Your task to perform on an android device: Show me productivity apps on the Play Store Image 0: 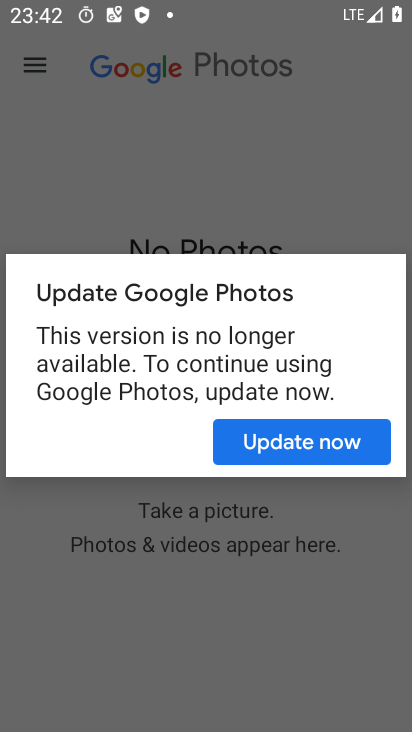
Step 0: press home button
Your task to perform on an android device: Show me productivity apps on the Play Store Image 1: 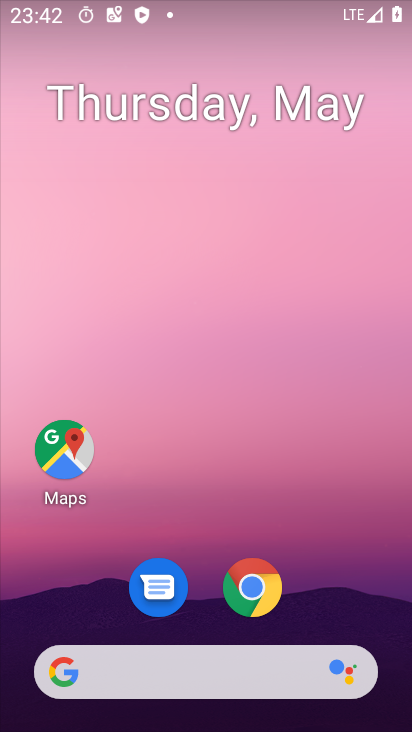
Step 1: drag from (369, 634) to (299, 7)
Your task to perform on an android device: Show me productivity apps on the Play Store Image 2: 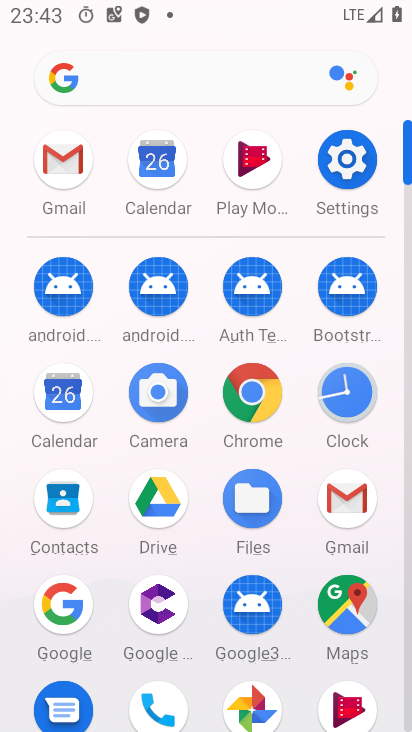
Step 2: click (403, 565)
Your task to perform on an android device: Show me productivity apps on the Play Store Image 3: 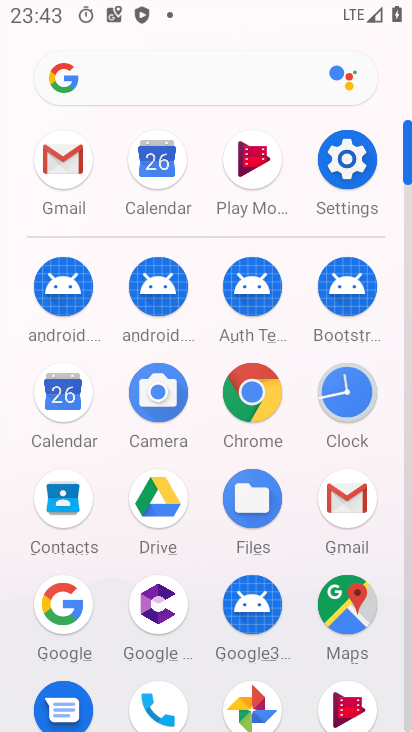
Step 3: click (408, 551)
Your task to perform on an android device: Show me productivity apps on the Play Store Image 4: 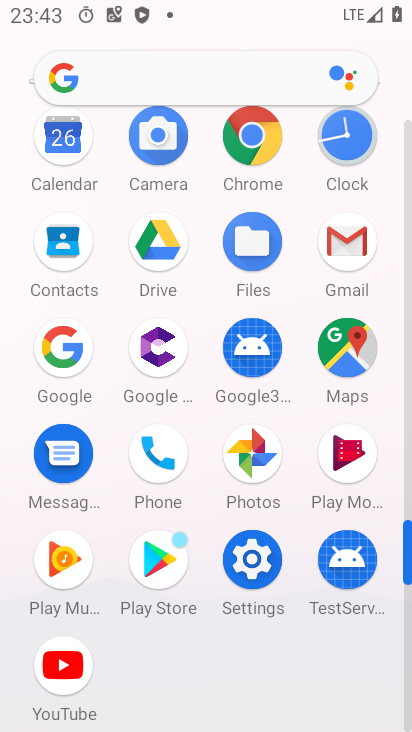
Step 4: click (159, 560)
Your task to perform on an android device: Show me productivity apps on the Play Store Image 5: 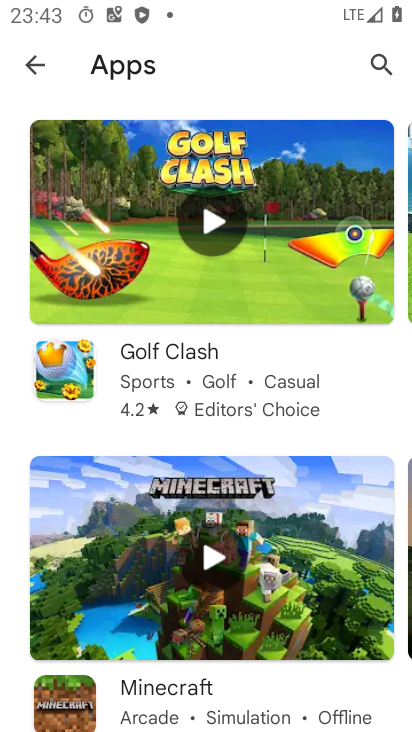
Step 5: click (32, 74)
Your task to perform on an android device: Show me productivity apps on the Play Store Image 6: 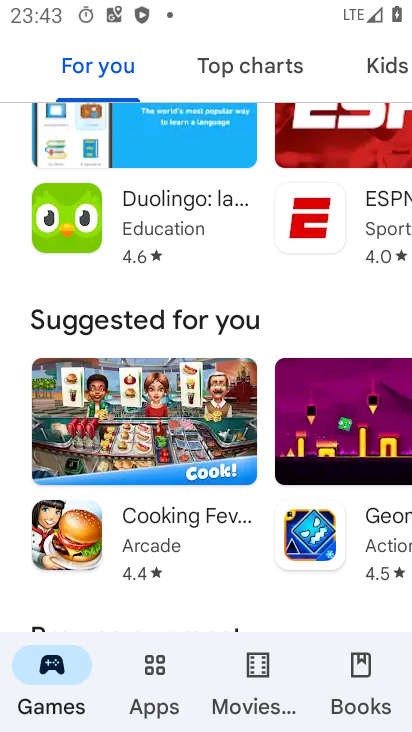
Step 6: click (155, 693)
Your task to perform on an android device: Show me productivity apps on the Play Store Image 7: 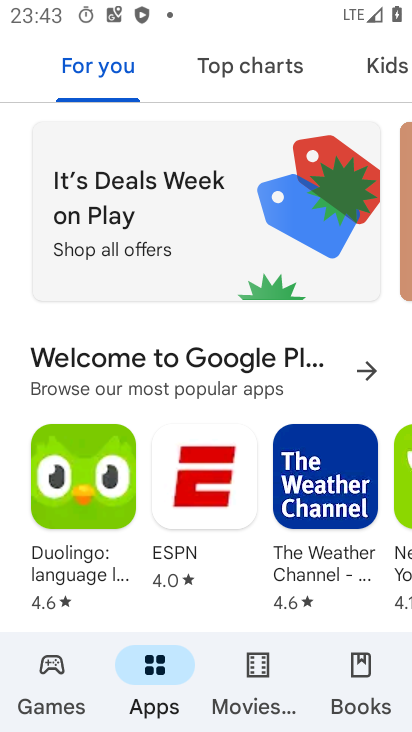
Step 7: drag from (325, 63) to (0, 109)
Your task to perform on an android device: Show me productivity apps on the Play Store Image 8: 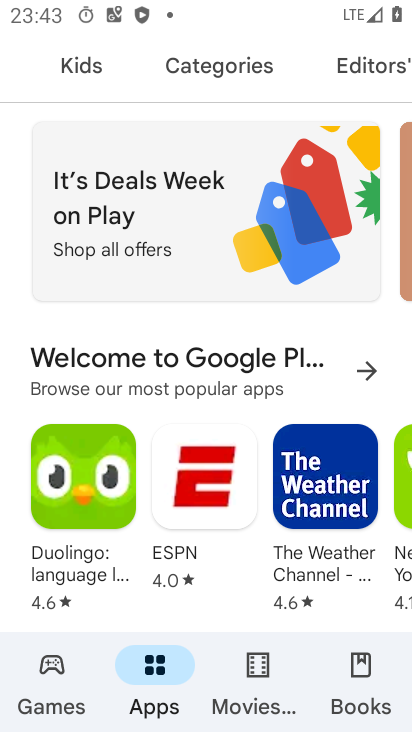
Step 8: click (183, 68)
Your task to perform on an android device: Show me productivity apps on the Play Store Image 9: 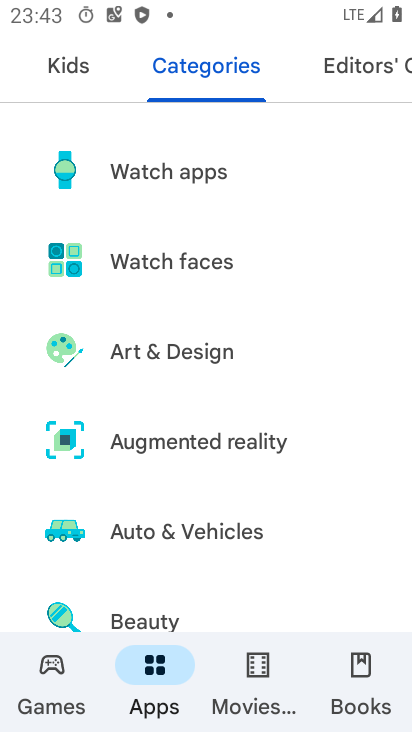
Step 9: drag from (326, 537) to (251, 225)
Your task to perform on an android device: Show me productivity apps on the Play Store Image 10: 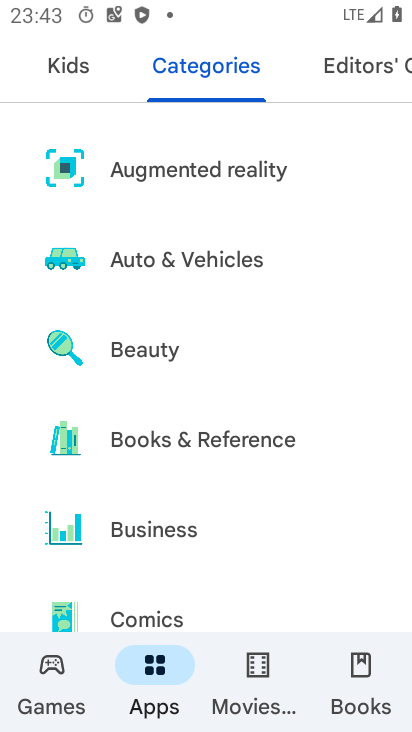
Step 10: drag from (206, 546) to (188, 40)
Your task to perform on an android device: Show me productivity apps on the Play Store Image 11: 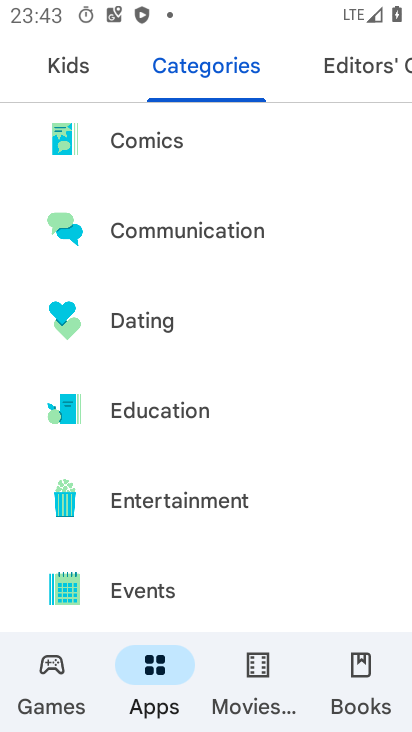
Step 11: drag from (248, 508) to (196, 95)
Your task to perform on an android device: Show me productivity apps on the Play Store Image 12: 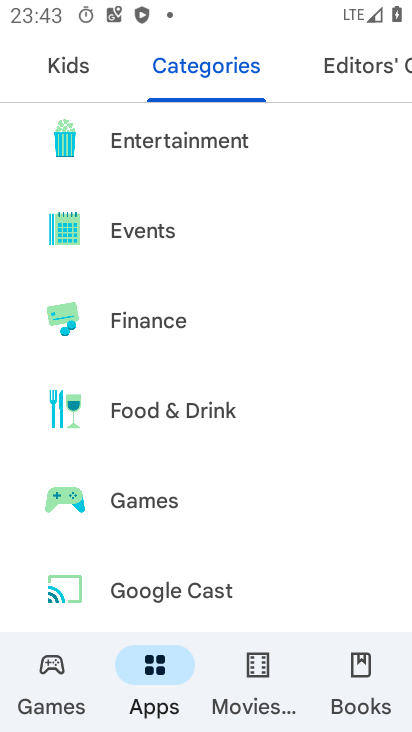
Step 12: drag from (191, 491) to (139, 29)
Your task to perform on an android device: Show me productivity apps on the Play Store Image 13: 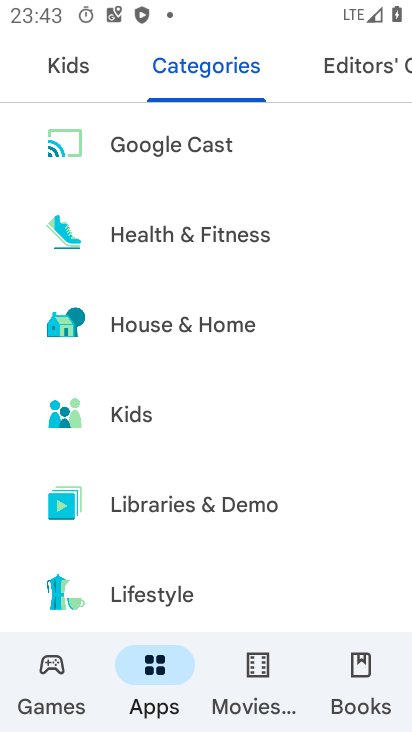
Step 13: drag from (223, 514) to (174, 81)
Your task to perform on an android device: Show me productivity apps on the Play Store Image 14: 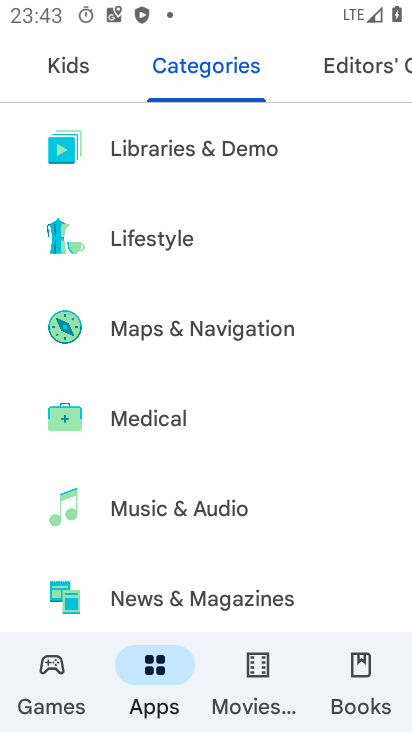
Step 14: drag from (254, 499) to (207, 139)
Your task to perform on an android device: Show me productivity apps on the Play Store Image 15: 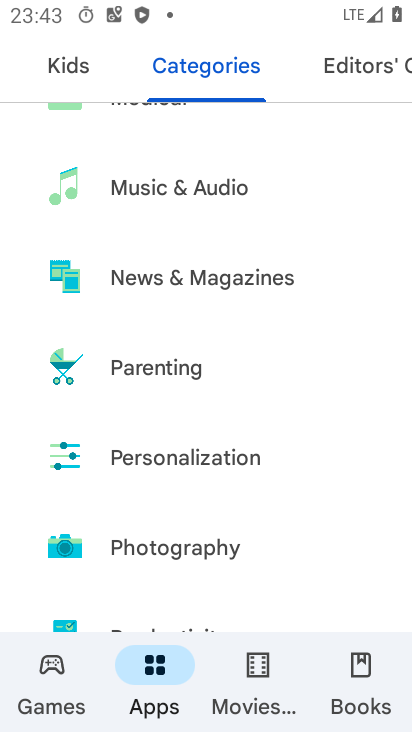
Step 15: drag from (242, 544) to (229, 424)
Your task to perform on an android device: Show me productivity apps on the Play Store Image 16: 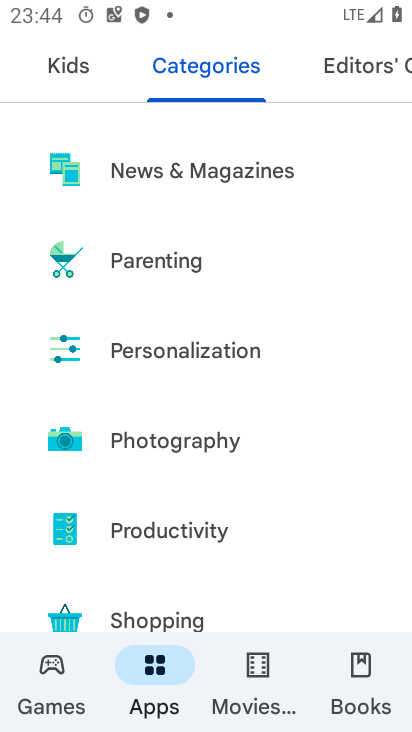
Step 16: click (164, 523)
Your task to perform on an android device: Show me productivity apps on the Play Store Image 17: 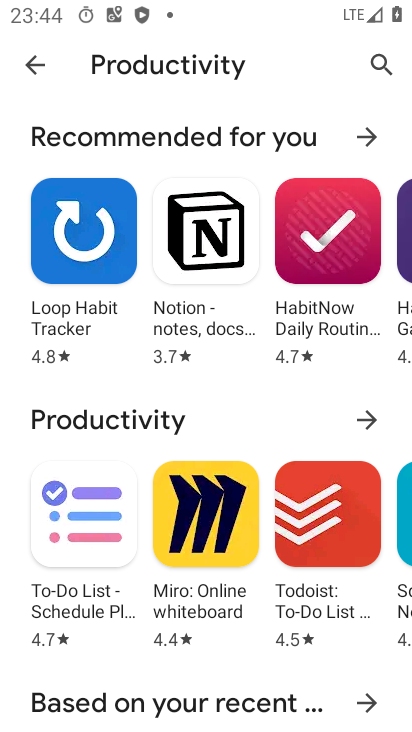
Step 17: task complete